Your task to perform on an android device: open sync settings in chrome Image 0: 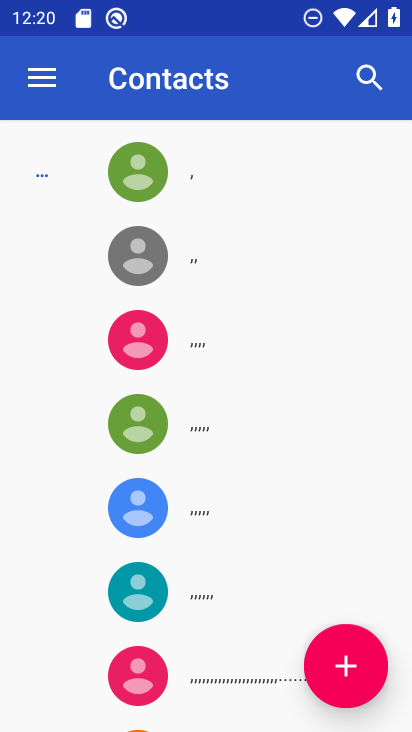
Step 0: press home button
Your task to perform on an android device: open sync settings in chrome Image 1: 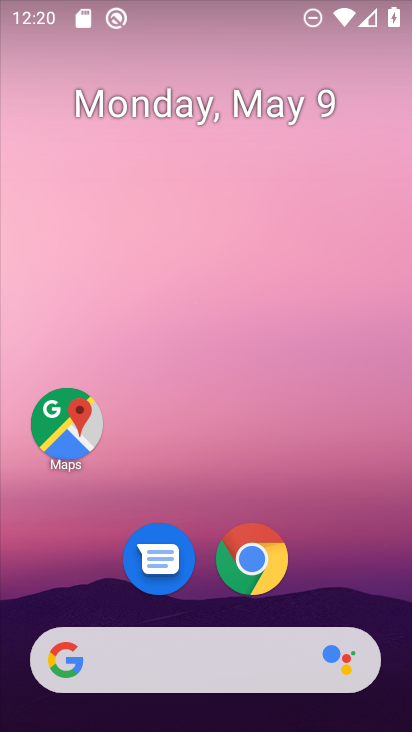
Step 1: drag from (329, 577) to (220, 128)
Your task to perform on an android device: open sync settings in chrome Image 2: 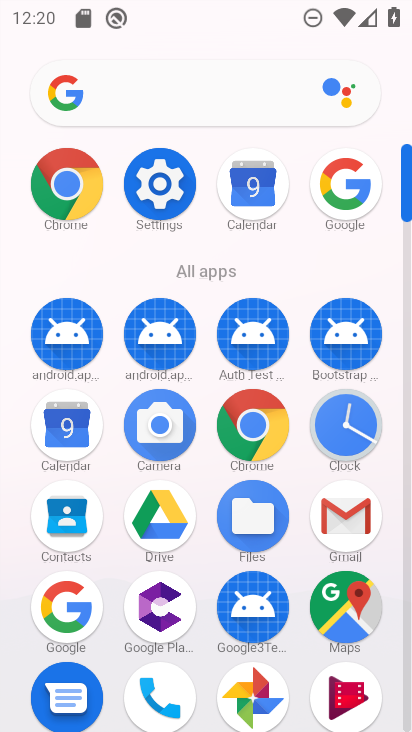
Step 2: click (57, 181)
Your task to perform on an android device: open sync settings in chrome Image 3: 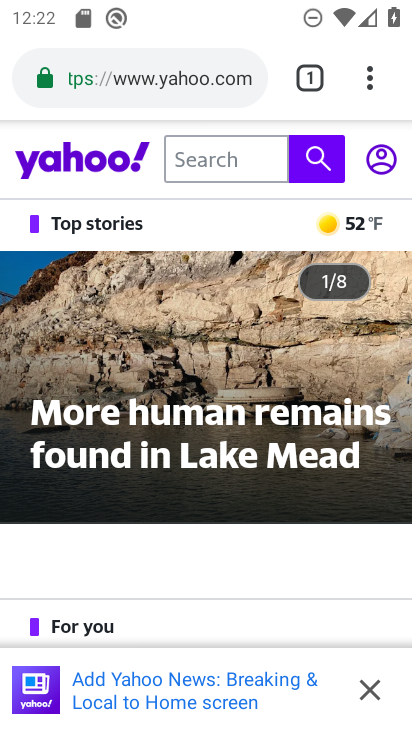
Step 3: drag from (347, 74) to (138, 598)
Your task to perform on an android device: open sync settings in chrome Image 4: 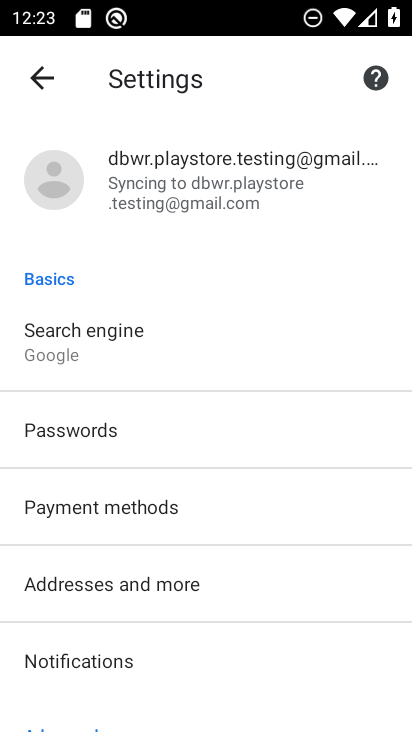
Step 4: drag from (220, 631) to (231, 708)
Your task to perform on an android device: open sync settings in chrome Image 5: 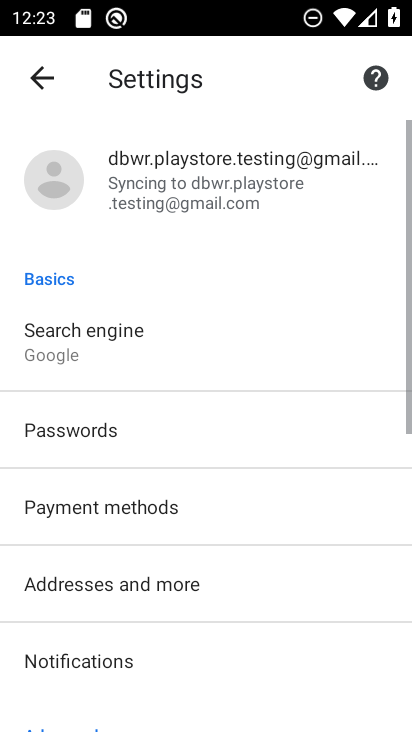
Step 5: click (108, 158)
Your task to perform on an android device: open sync settings in chrome Image 6: 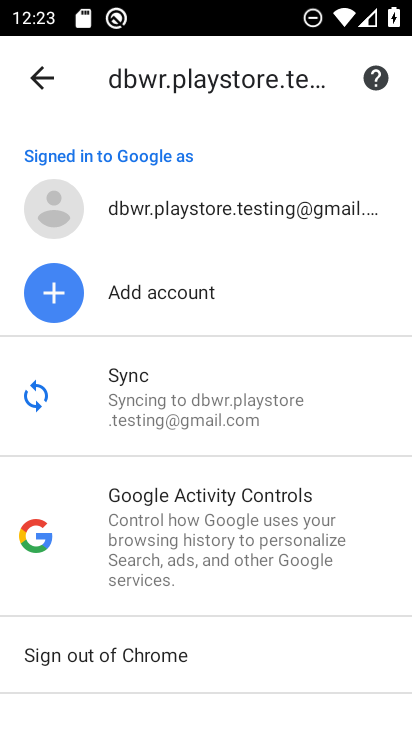
Step 6: click (143, 391)
Your task to perform on an android device: open sync settings in chrome Image 7: 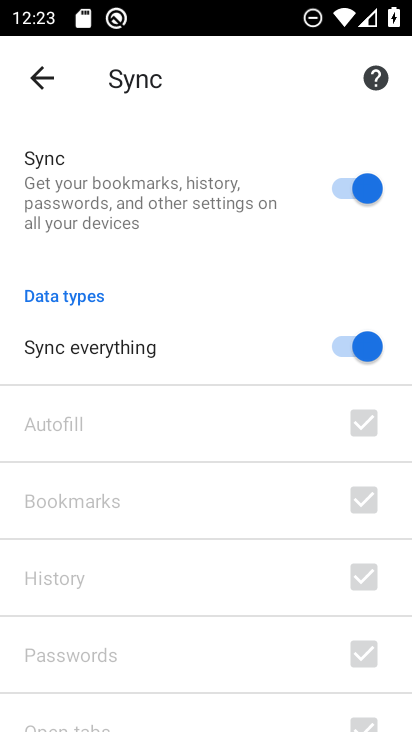
Step 7: task complete